Your task to perform on an android device: set the stopwatch Image 0: 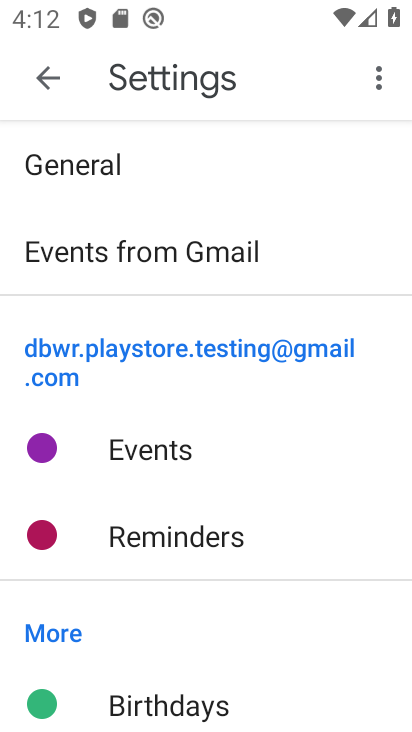
Step 0: press home button
Your task to perform on an android device: set the stopwatch Image 1: 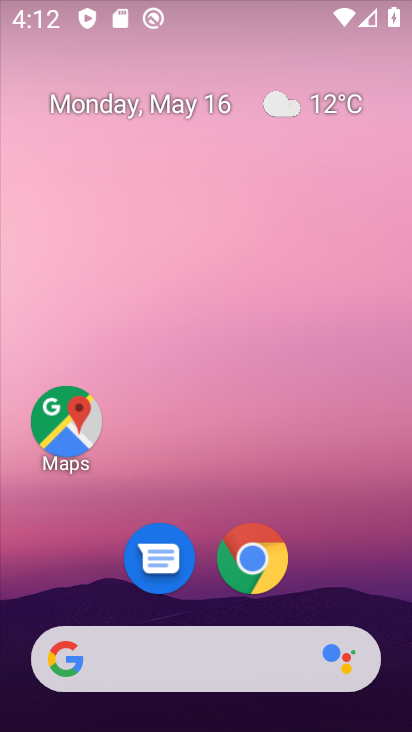
Step 1: drag from (329, 575) to (328, 153)
Your task to perform on an android device: set the stopwatch Image 2: 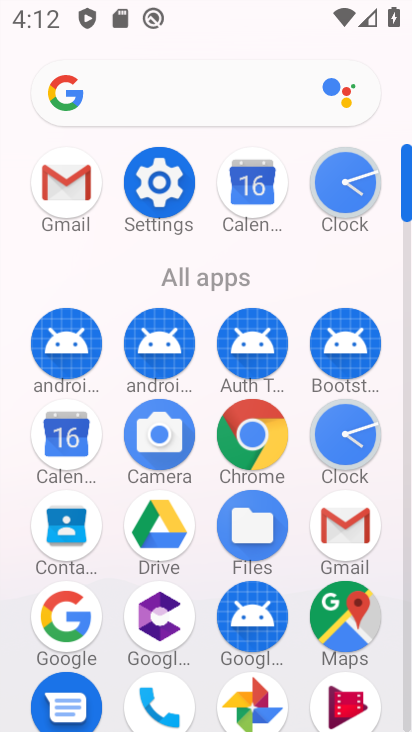
Step 2: click (337, 470)
Your task to perform on an android device: set the stopwatch Image 3: 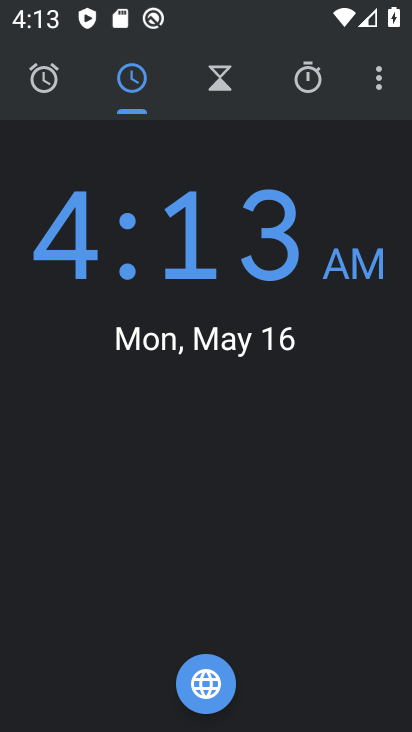
Step 3: click (296, 86)
Your task to perform on an android device: set the stopwatch Image 4: 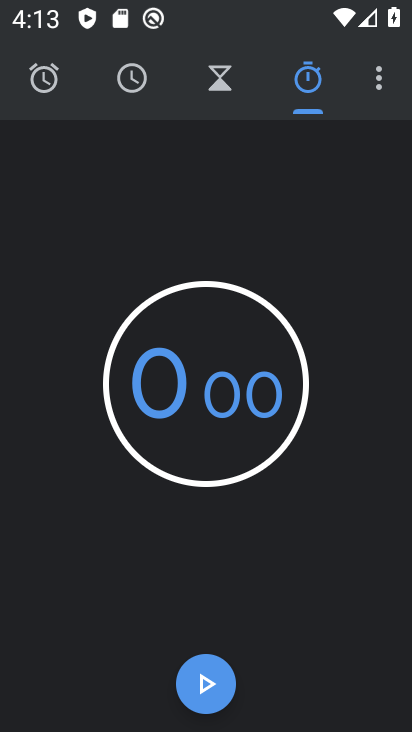
Step 4: task complete